Your task to perform on an android device: View the shopping cart on bestbuy.com. Add "macbook pro 15 inch" to the cart on bestbuy.com, then select checkout. Image 0: 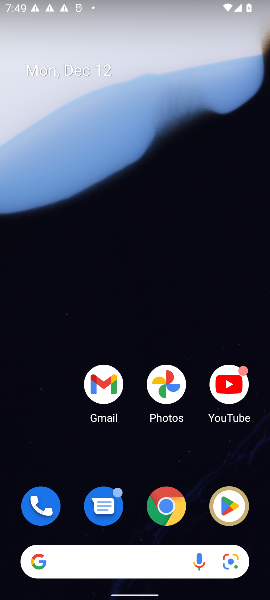
Step 0: click (135, 561)
Your task to perform on an android device: View the shopping cart on bestbuy.com. Add "macbook pro 15 inch" to the cart on bestbuy.com, then select checkout. Image 1: 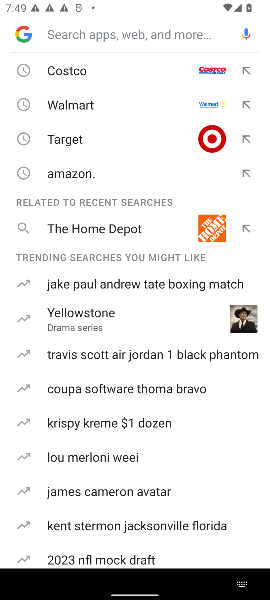
Step 1: type "bestbuy"
Your task to perform on an android device: View the shopping cart on bestbuy.com. Add "macbook pro 15 inch" to the cart on bestbuy.com, then select checkout. Image 2: 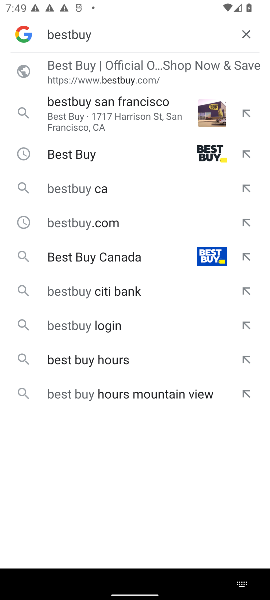
Step 2: click (130, 81)
Your task to perform on an android device: View the shopping cart on bestbuy.com. Add "macbook pro 15 inch" to the cart on bestbuy.com, then select checkout. Image 3: 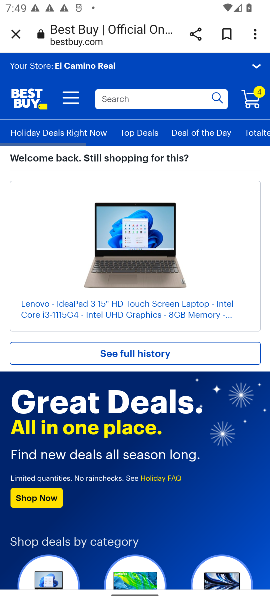
Step 3: click (148, 99)
Your task to perform on an android device: View the shopping cart on bestbuy.com. Add "macbook pro 15 inch" to the cart on bestbuy.com, then select checkout. Image 4: 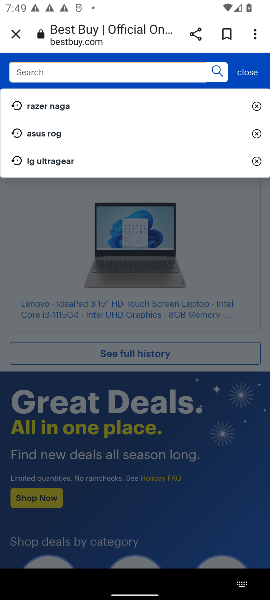
Step 4: type "macbook pro 15"
Your task to perform on an android device: View the shopping cart on bestbuy.com. Add "macbook pro 15 inch" to the cart on bestbuy.com, then select checkout. Image 5: 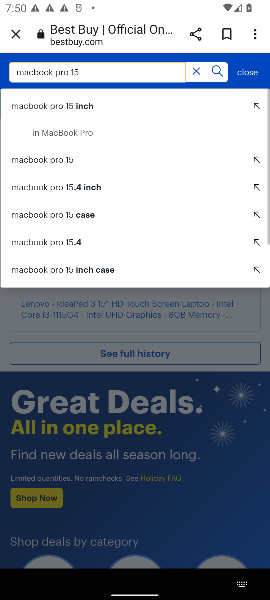
Step 5: click (127, 102)
Your task to perform on an android device: View the shopping cart on bestbuy.com. Add "macbook pro 15 inch" to the cart on bestbuy.com, then select checkout. Image 6: 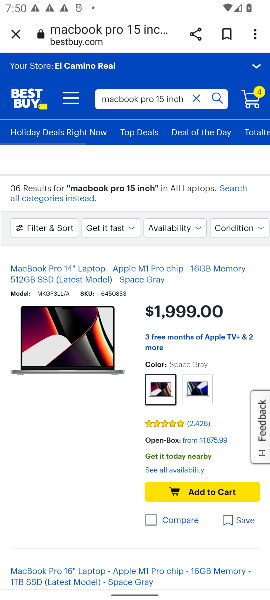
Step 6: click (183, 492)
Your task to perform on an android device: View the shopping cart on bestbuy.com. Add "macbook pro 15 inch" to the cart on bestbuy.com, then select checkout. Image 7: 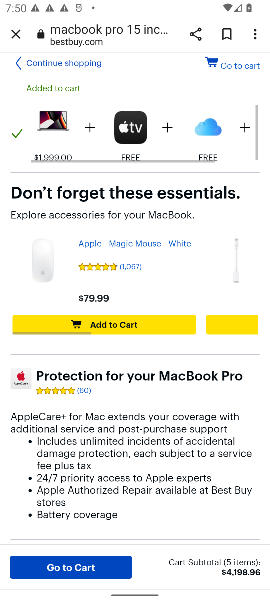
Step 7: task complete